Your task to perform on an android device: toggle data saver in the chrome app Image 0: 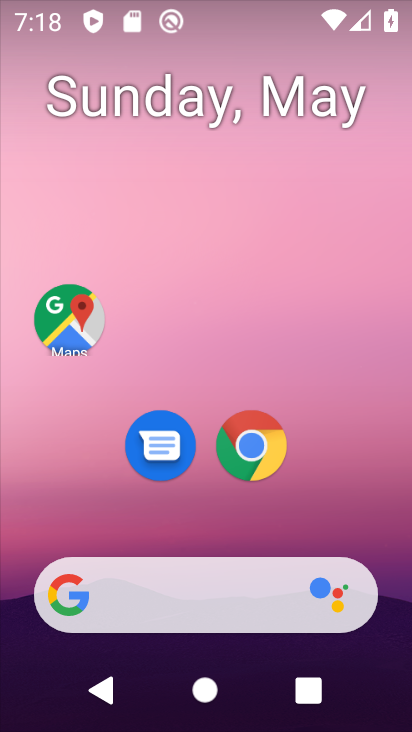
Step 0: click (248, 449)
Your task to perform on an android device: toggle data saver in the chrome app Image 1: 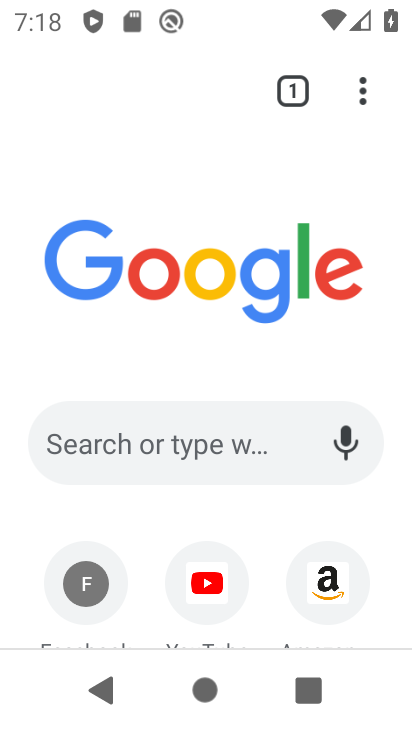
Step 1: click (361, 91)
Your task to perform on an android device: toggle data saver in the chrome app Image 2: 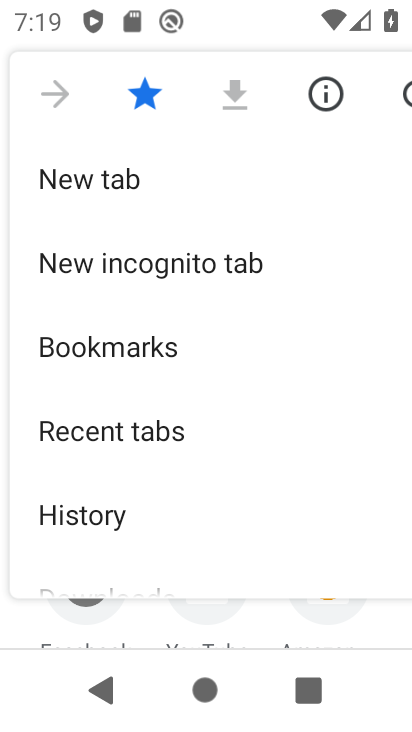
Step 2: drag from (215, 477) to (188, 172)
Your task to perform on an android device: toggle data saver in the chrome app Image 3: 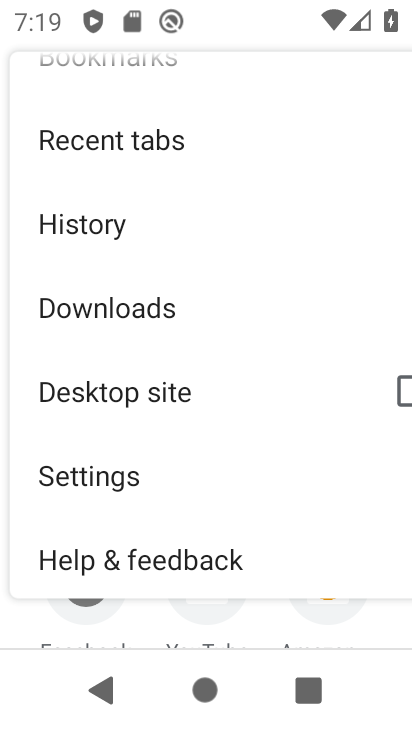
Step 3: drag from (244, 517) to (223, 299)
Your task to perform on an android device: toggle data saver in the chrome app Image 4: 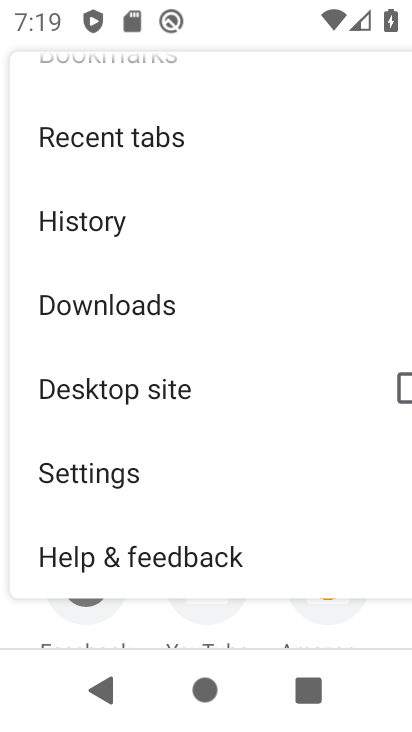
Step 4: click (101, 467)
Your task to perform on an android device: toggle data saver in the chrome app Image 5: 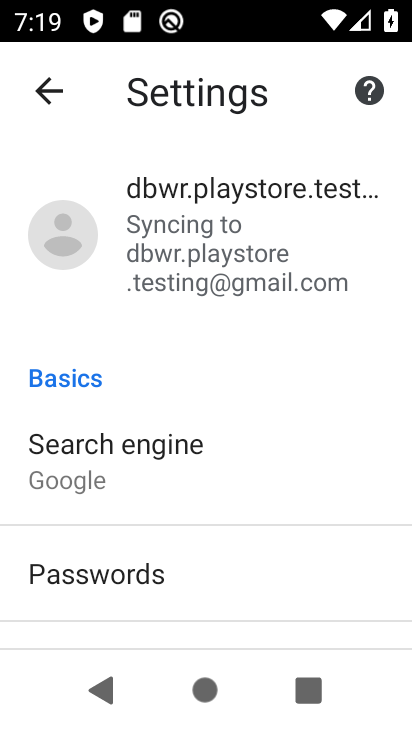
Step 5: drag from (227, 509) to (196, 249)
Your task to perform on an android device: toggle data saver in the chrome app Image 6: 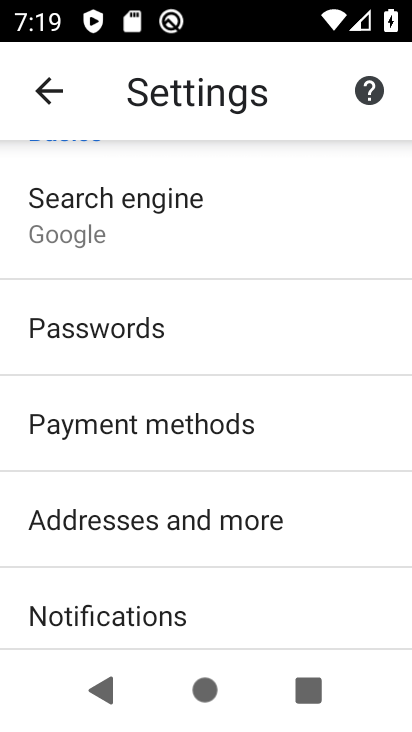
Step 6: drag from (234, 583) to (203, 189)
Your task to perform on an android device: toggle data saver in the chrome app Image 7: 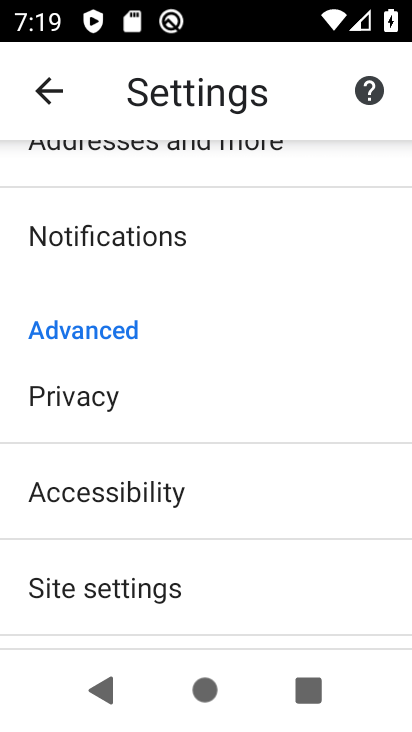
Step 7: drag from (203, 526) to (187, 220)
Your task to perform on an android device: toggle data saver in the chrome app Image 8: 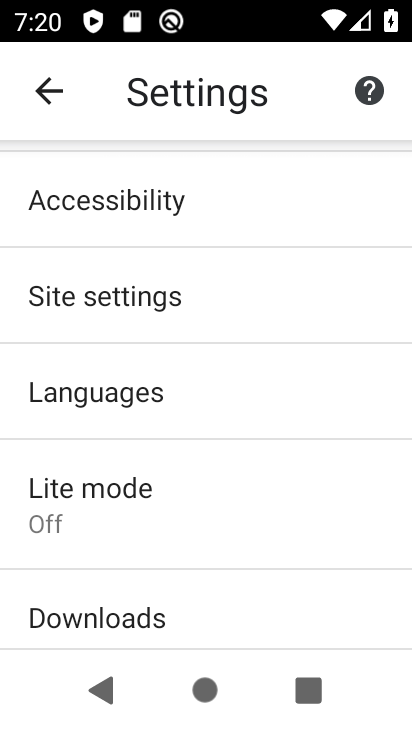
Step 8: click (99, 486)
Your task to perform on an android device: toggle data saver in the chrome app Image 9: 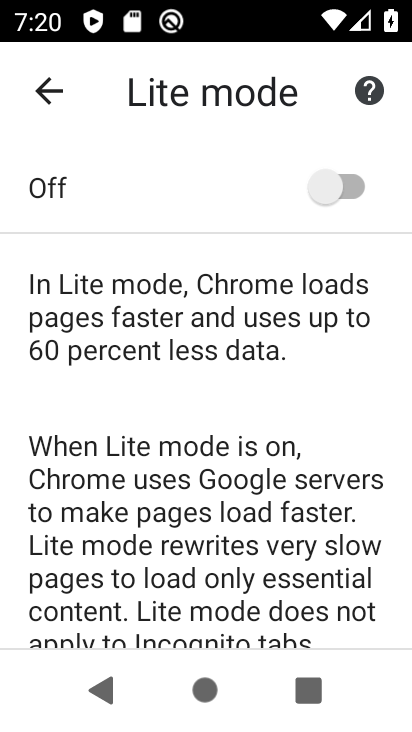
Step 9: click (324, 190)
Your task to perform on an android device: toggle data saver in the chrome app Image 10: 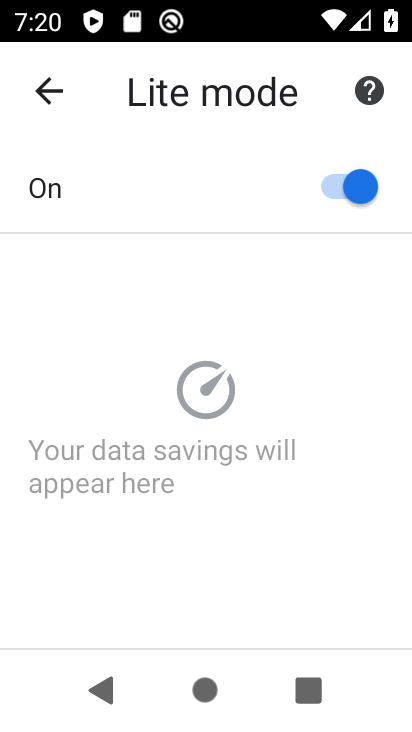
Step 10: task complete